Your task to perform on an android device: turn off improve location accuracy Image 0: 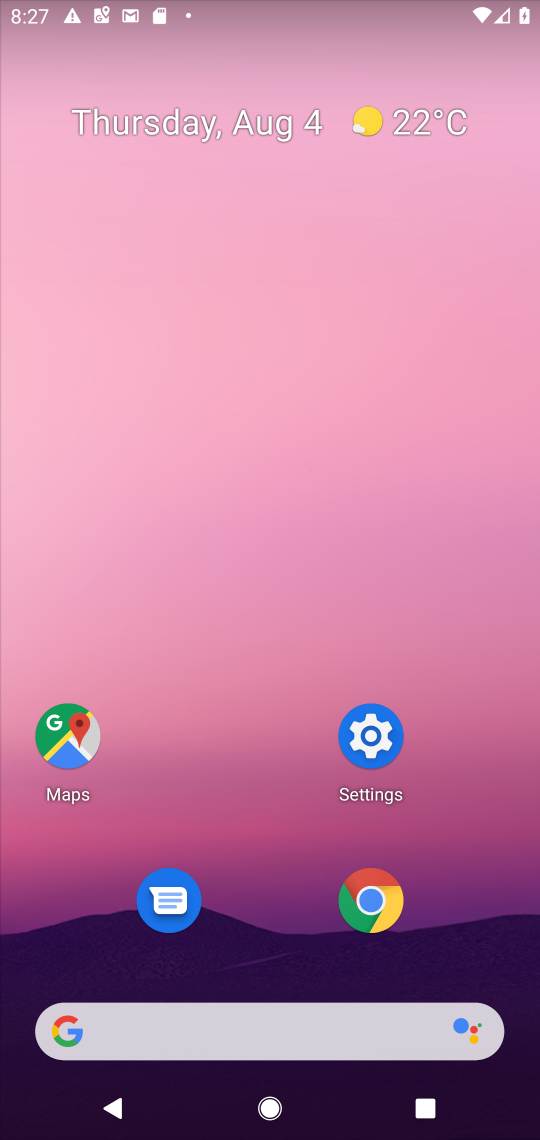
Step 0: click (373, 736)
Your task to perform on an android device: turn off improve location accuracy Image 1: 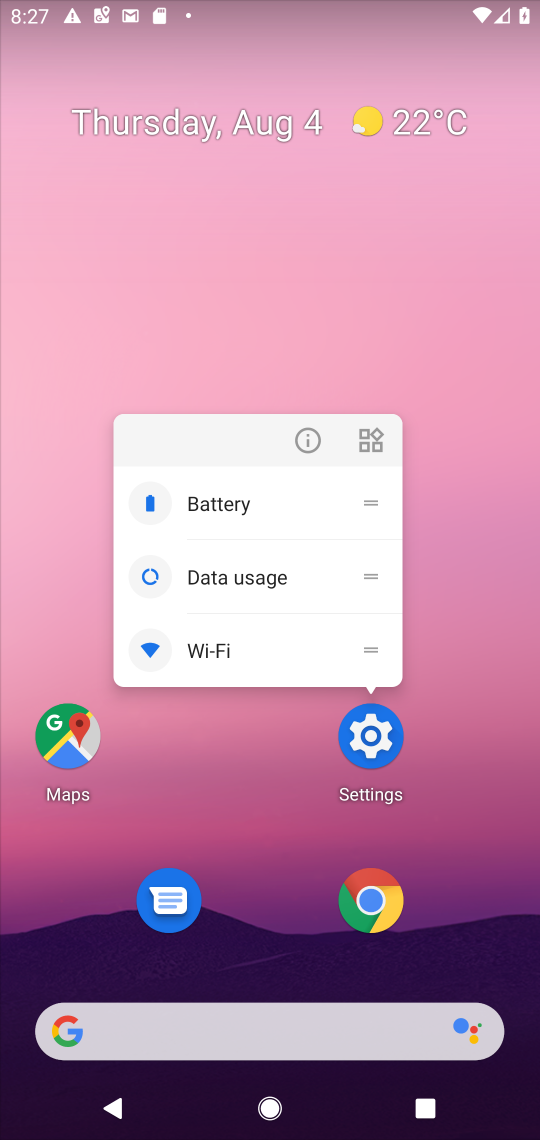
Step 1: click (373, 737)
Your task to perform on an android device: turn off improve location accuracy Image 2: 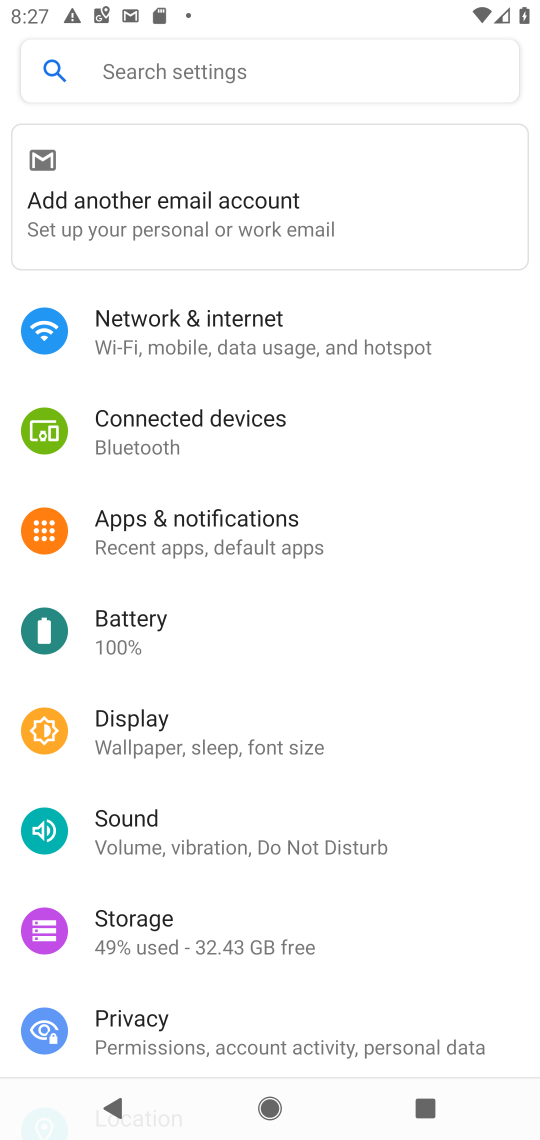
Step 2: drag from (248, 981) to (400, 494)
Your task to perform on an android device: turn off improve location accuracy Image 3: 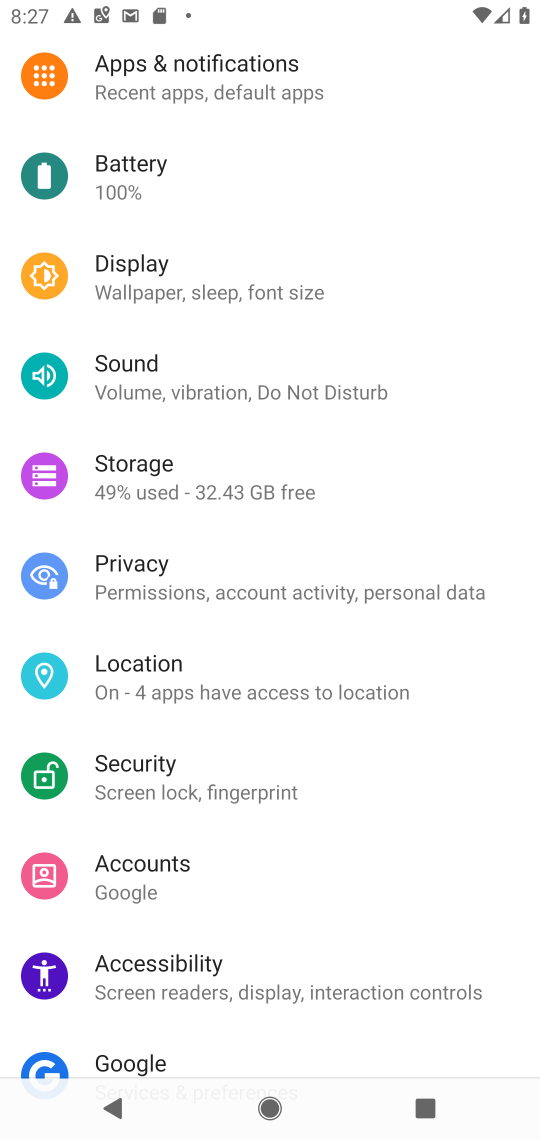
Step 3: click (214, 686)
Your task to perform on an android device: turn off improve location accuracy Image 4: 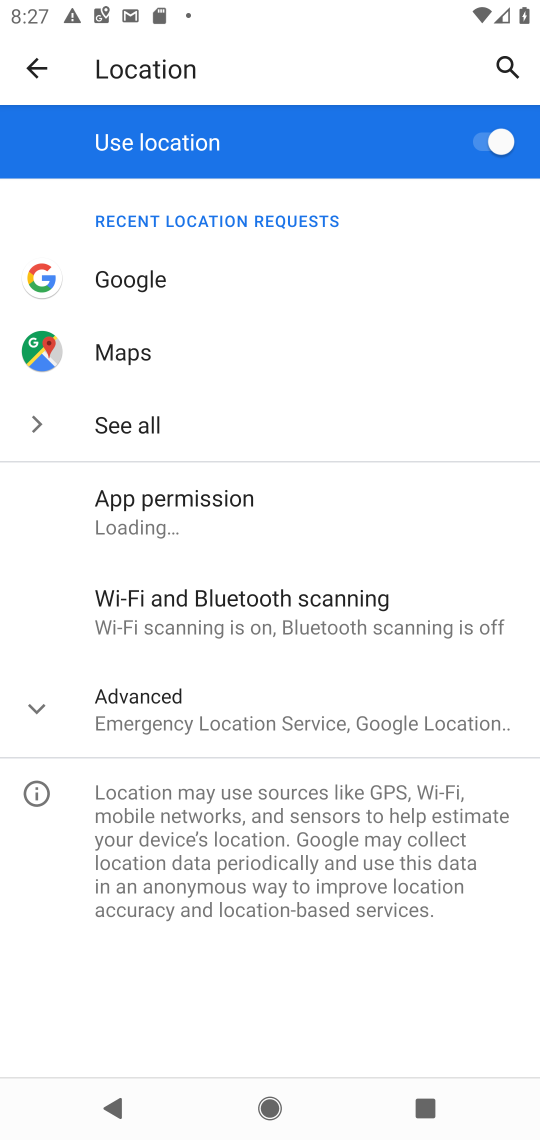
Step 4: click (139, 711)
Your task to perform on an android device: turn off improve location accuracy Image 5: 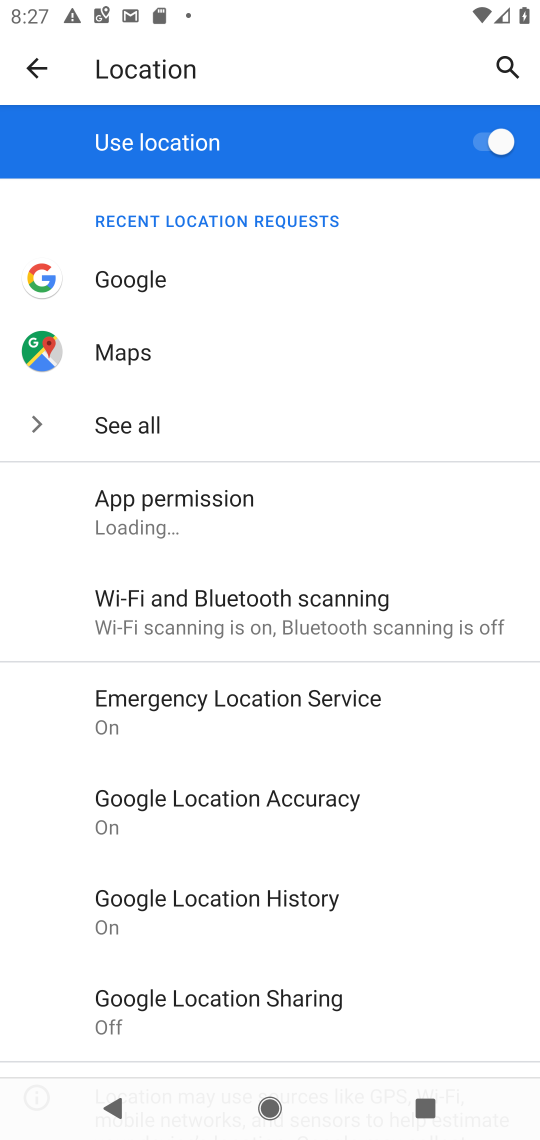
Step 5: click (265, 796)
Your task to perform on an android device: turn off improve location accuracy Image 6: 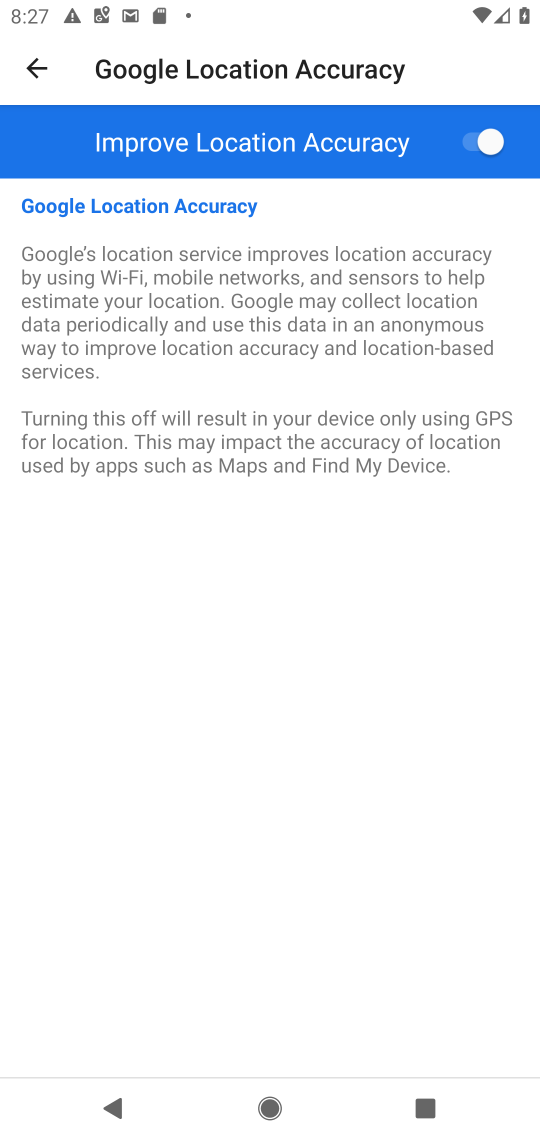
Step 6: click (473, 142)
Your task to perform on an android device: turn off improve location accuracy Image 7: 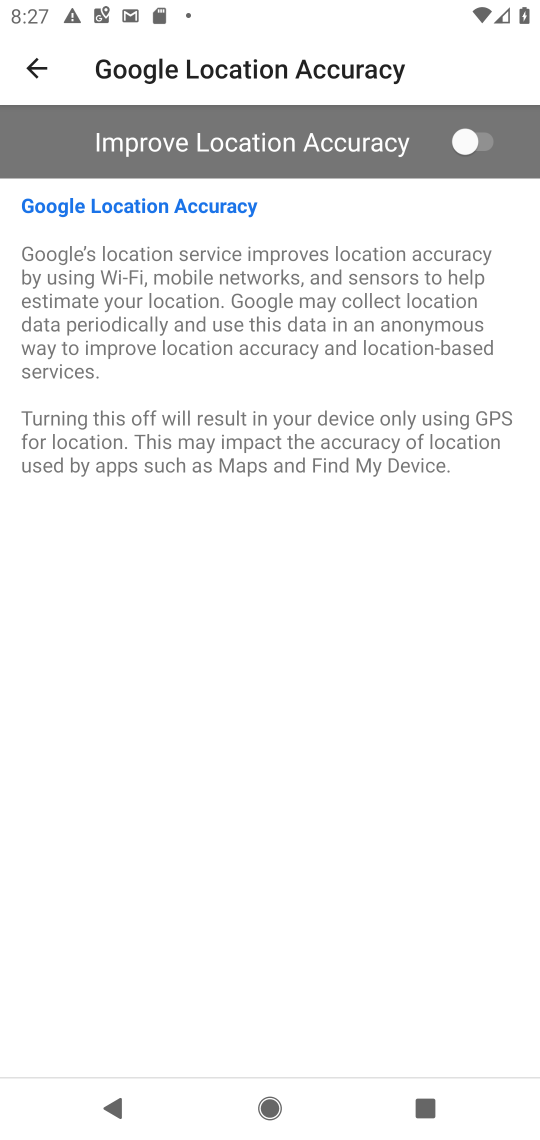
Step 7: task complete